Your task to perform on an android device: Add "asus rog" to the cart on newegg, then select checkout. Image 0: 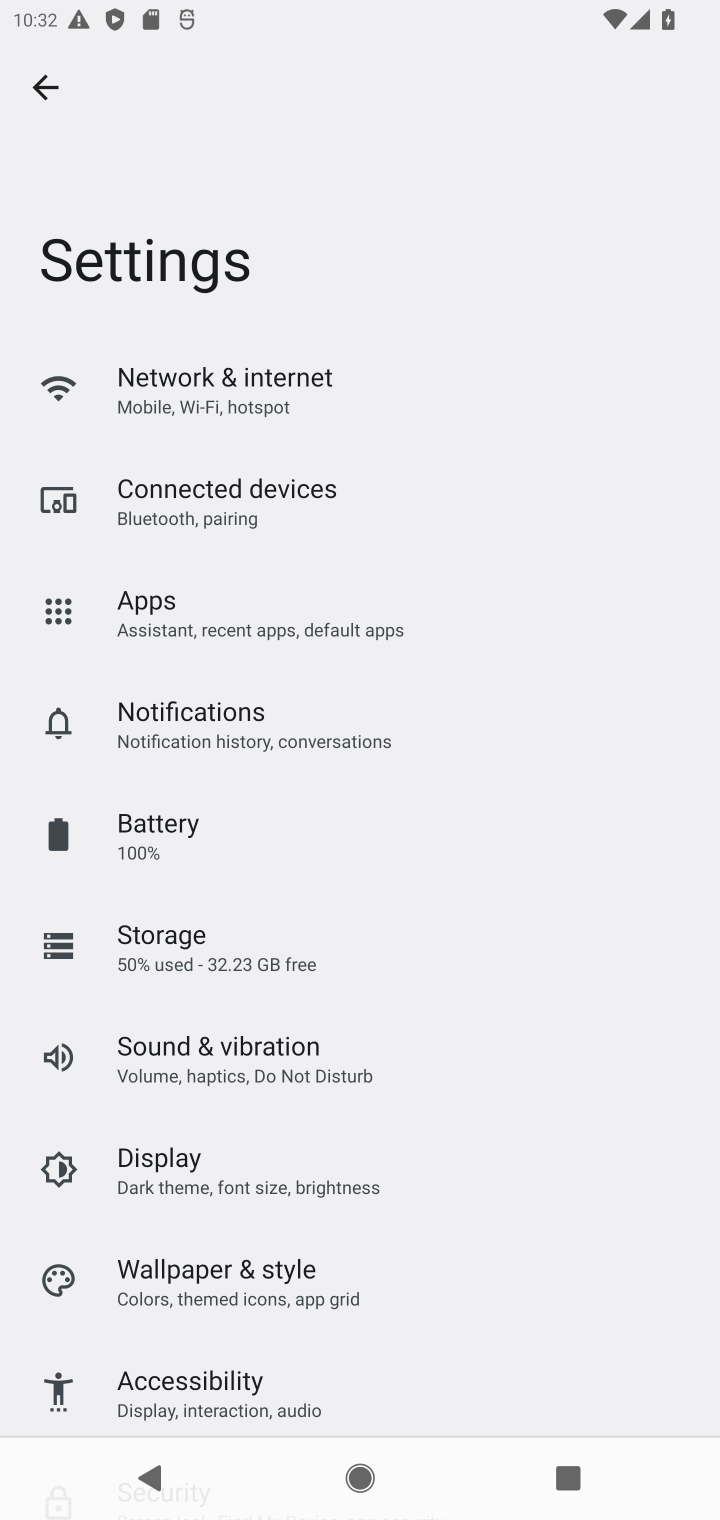
Step 0: press home button
Your task to perform on an android device: Add "asus rog" to the cart on newegg, then select checkout. Image 1: 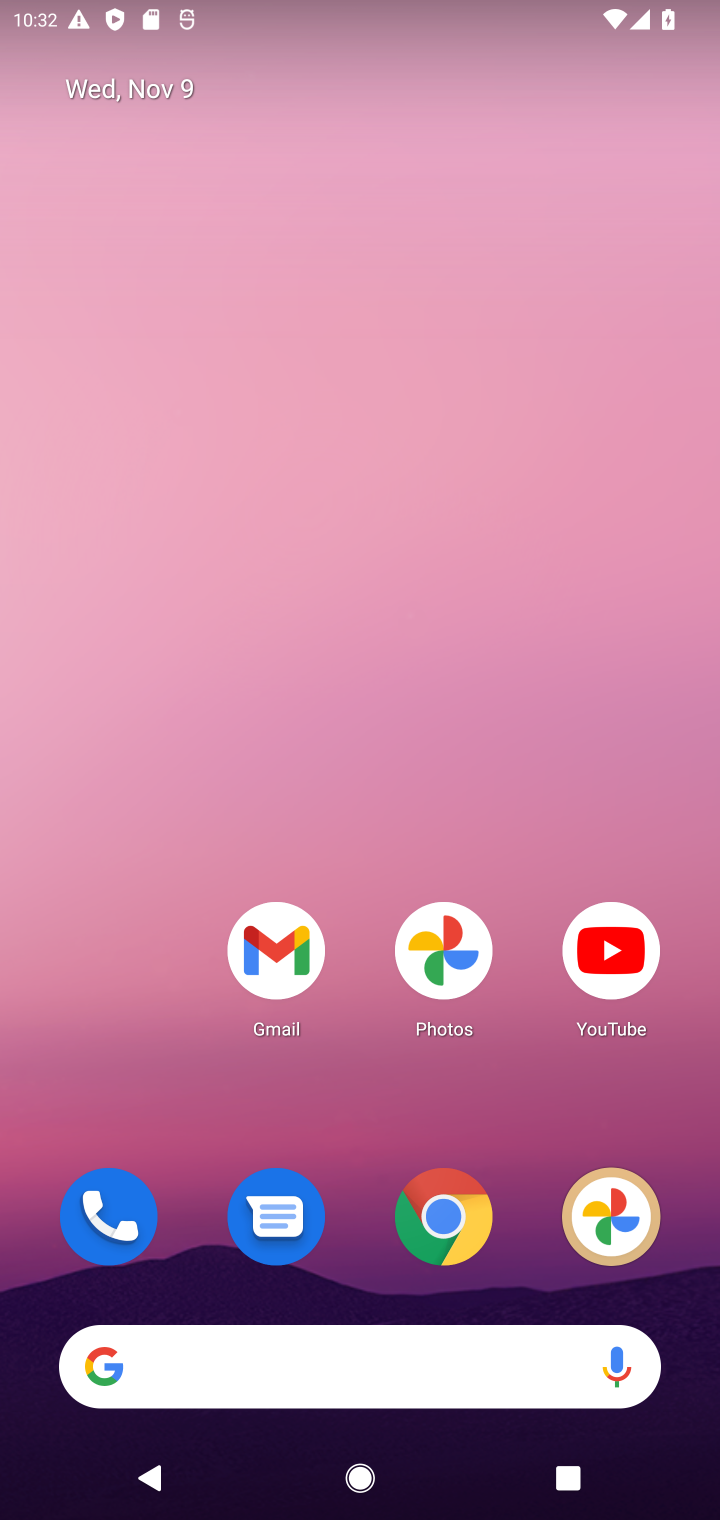
Step 1: drag from (379, 1142) to (344, 59)
Your task to perform on an android device: Add "asus rog" to the cart on newegg, then select checkout. Image 2: 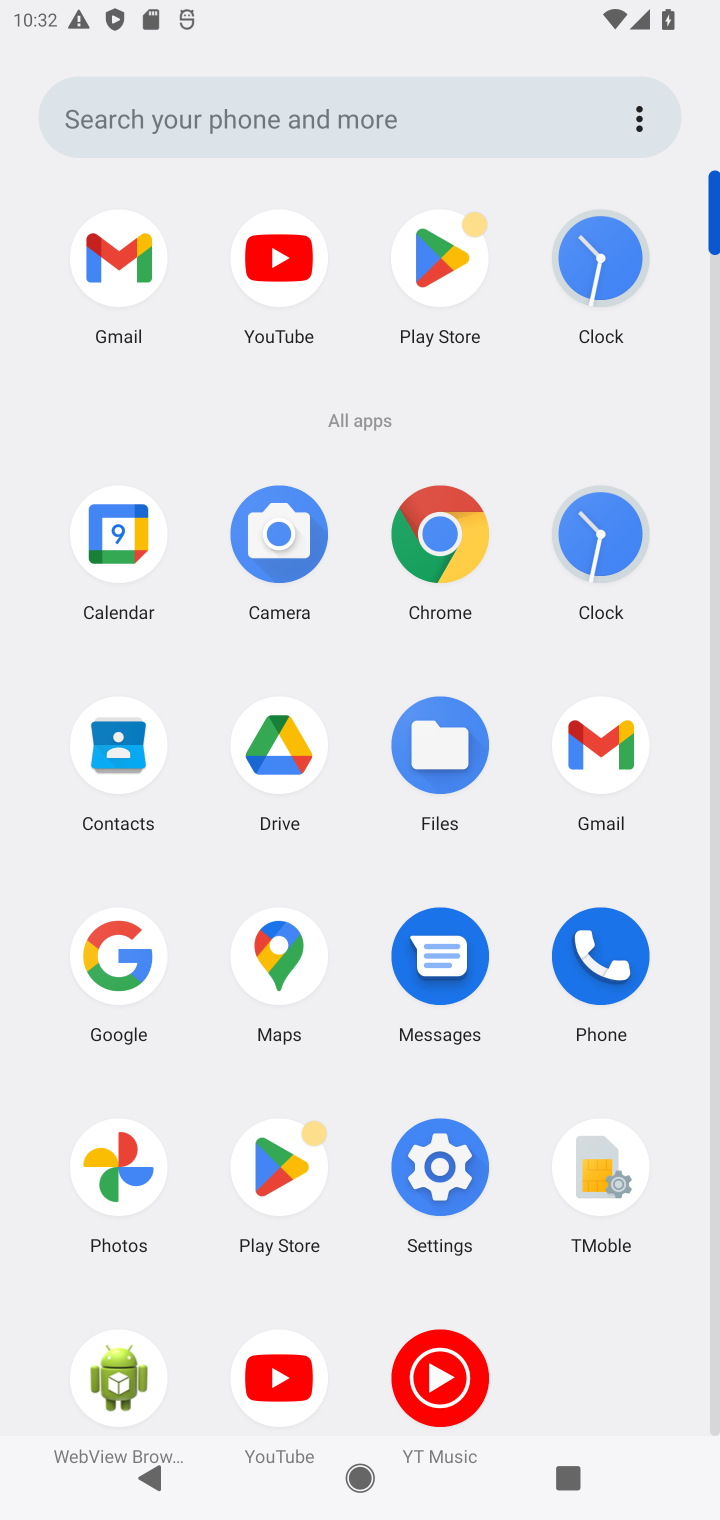
Step 2: click (434, 526)
Your task to perform on an android device: Add "asus rog" to the cart on newegg, then select checkout. Image 3: 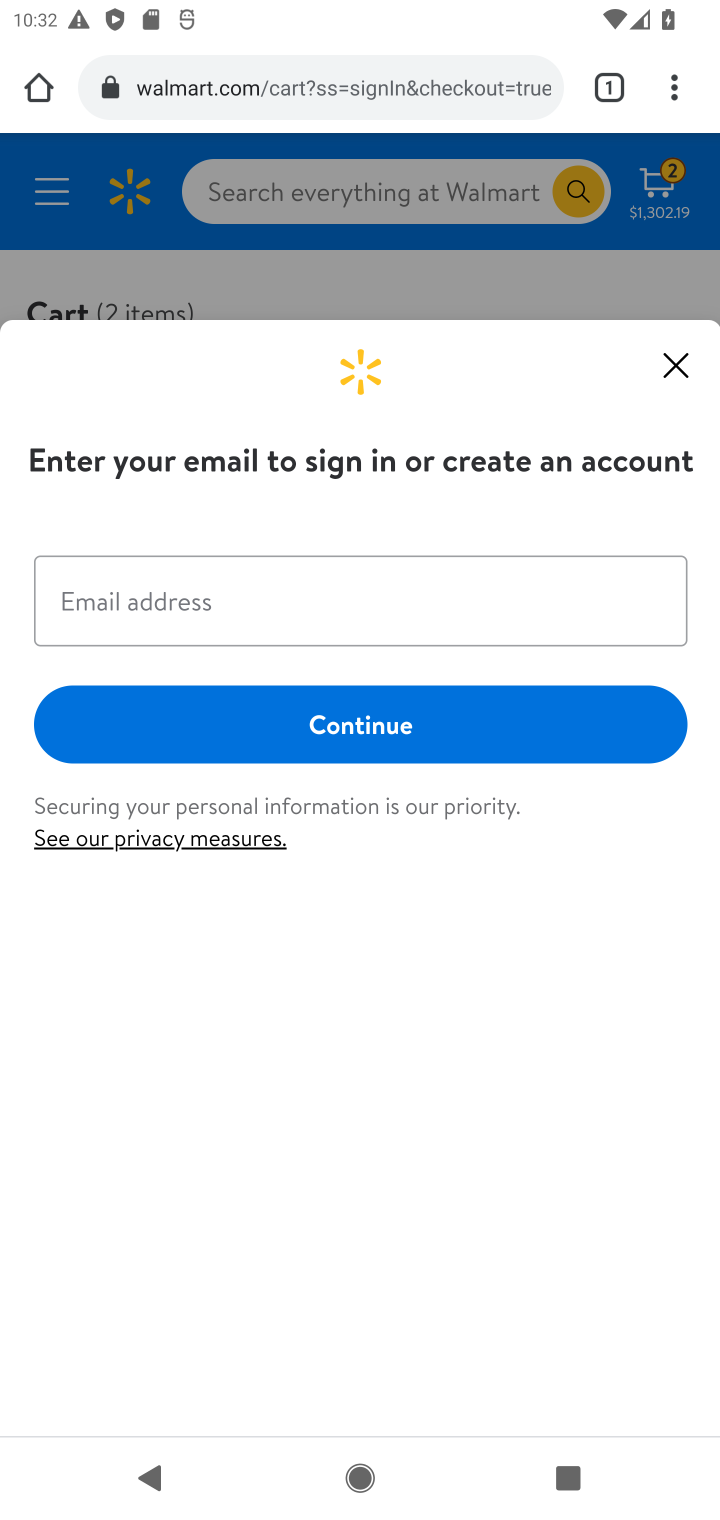
Step 3: click (338, 96)
Your task to perform on an android device: Add "asus rog" to the cart on newegg, then select checkout. Image 4: 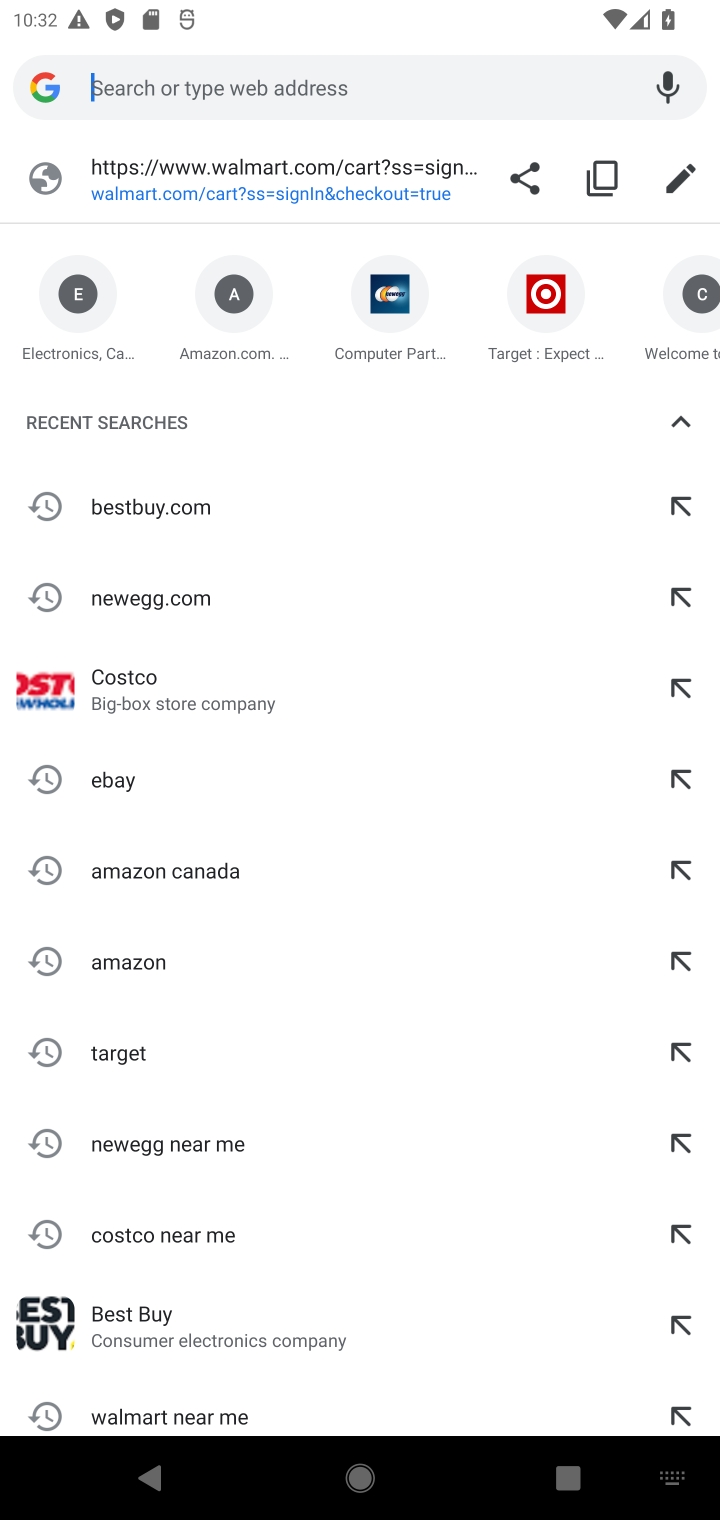
Step 4: type "newegg.com"
Your task to perform on an android device: Add "asus rog" to the cart on newegg, then select checkout. Image 5: 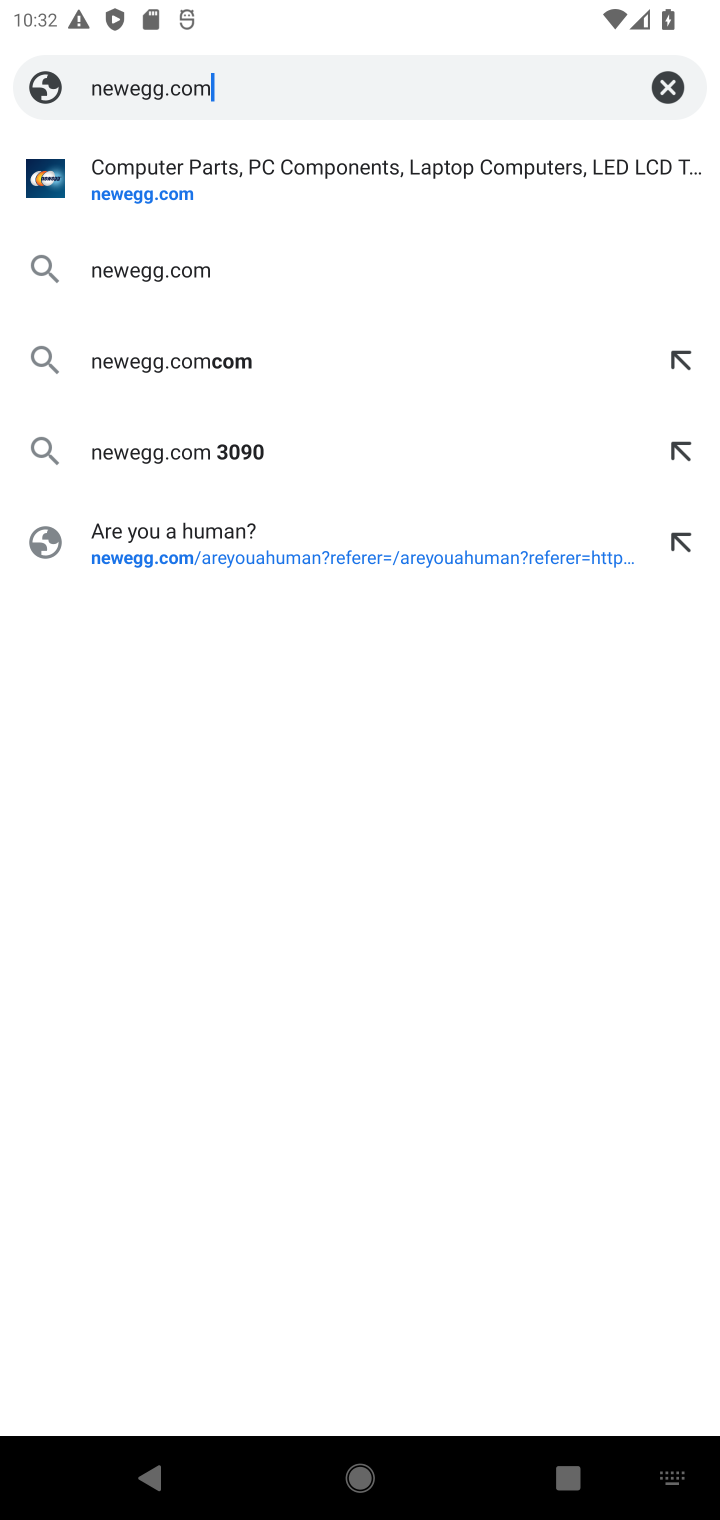
Step 5: press enter
Your task to perform on an android device: Add "asus rog" to the cart on newegg, then select checkout. Image 6: 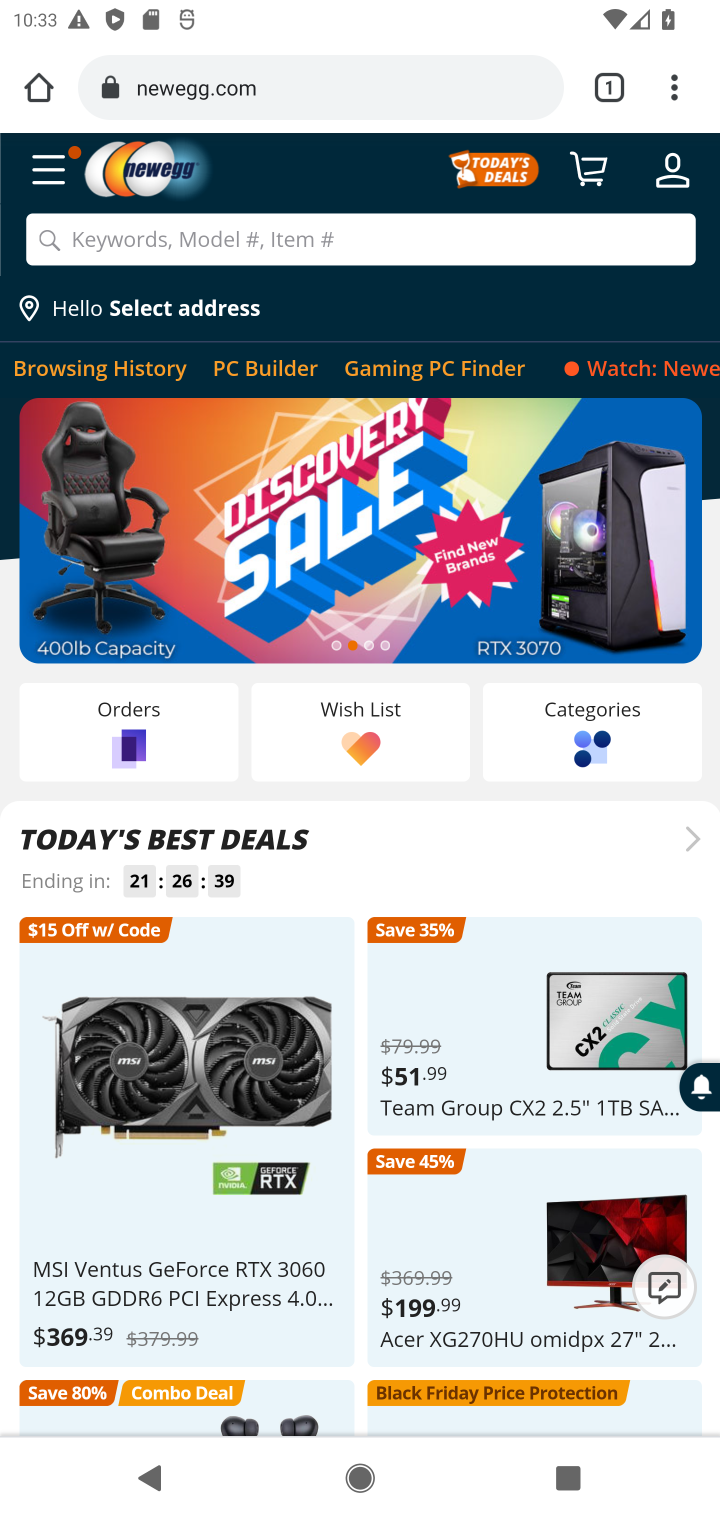
Step 6: click (360, 245)
Your task to perform on an android device: Add "asus rog" to the cart on newegg, then select checkout. Image 7: 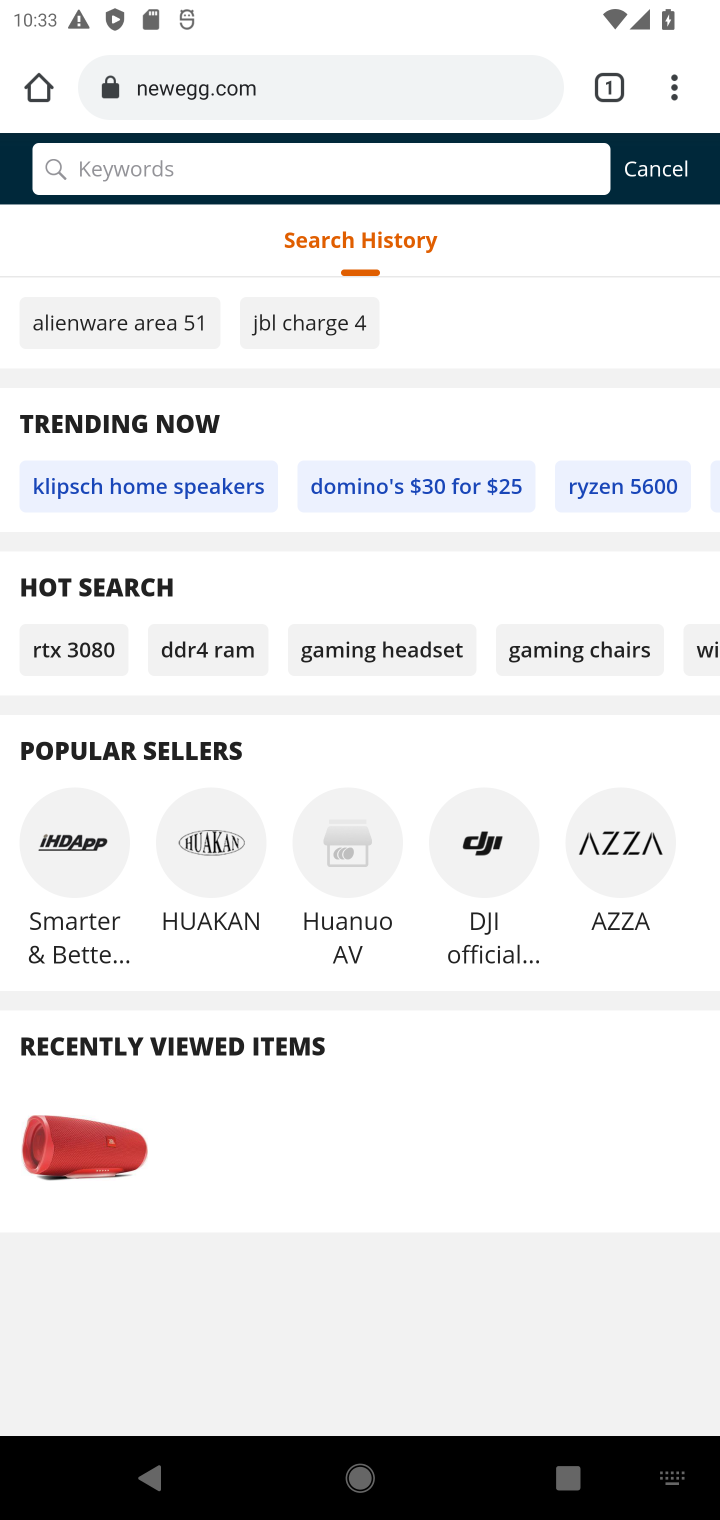
Step 7: type "asus rog"
Your task to perform on an android device: Add "asus rog" to the cart on newegg, then select checkout. Image 8: 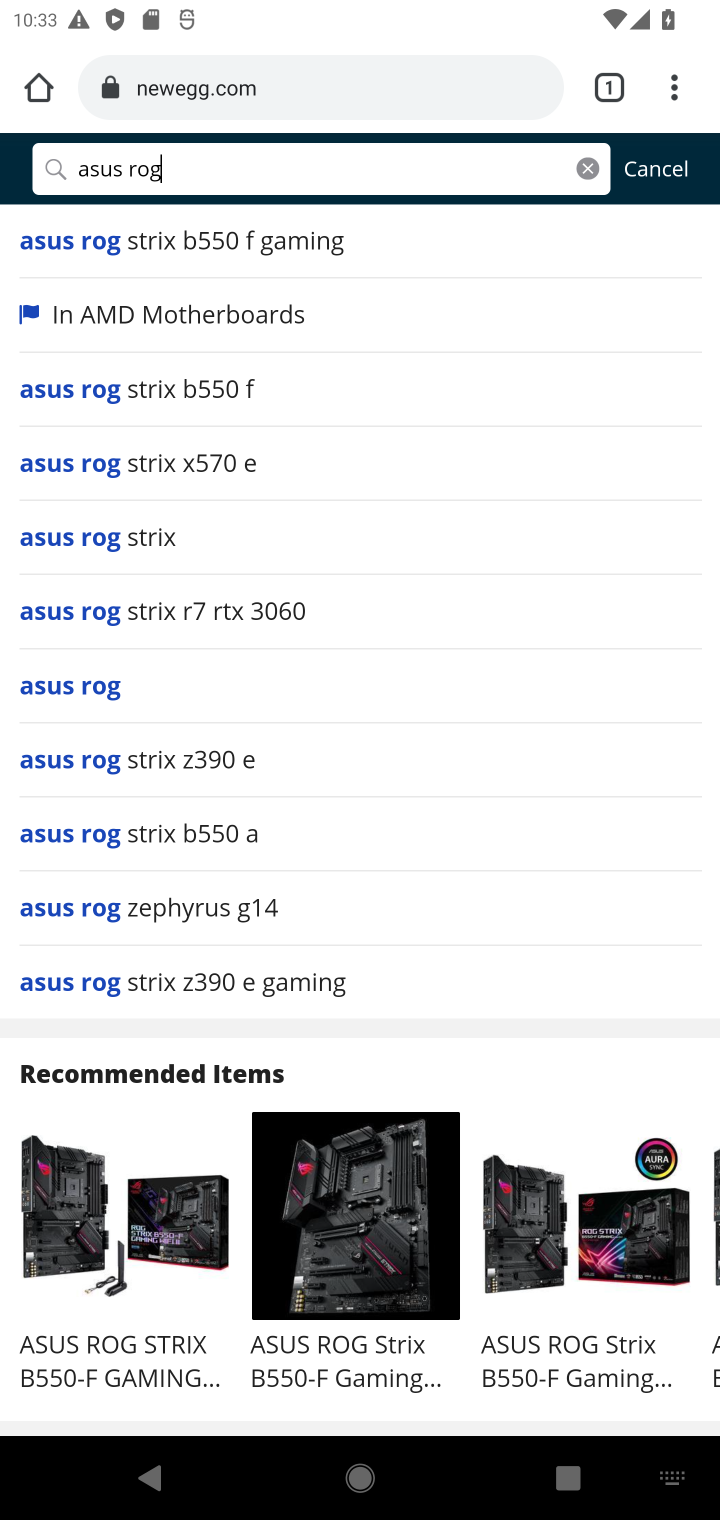
Step 8: press enter
Your task to perform on an android device: Add "asus rog" to the cart on newegg, then select checkout. Image 9: 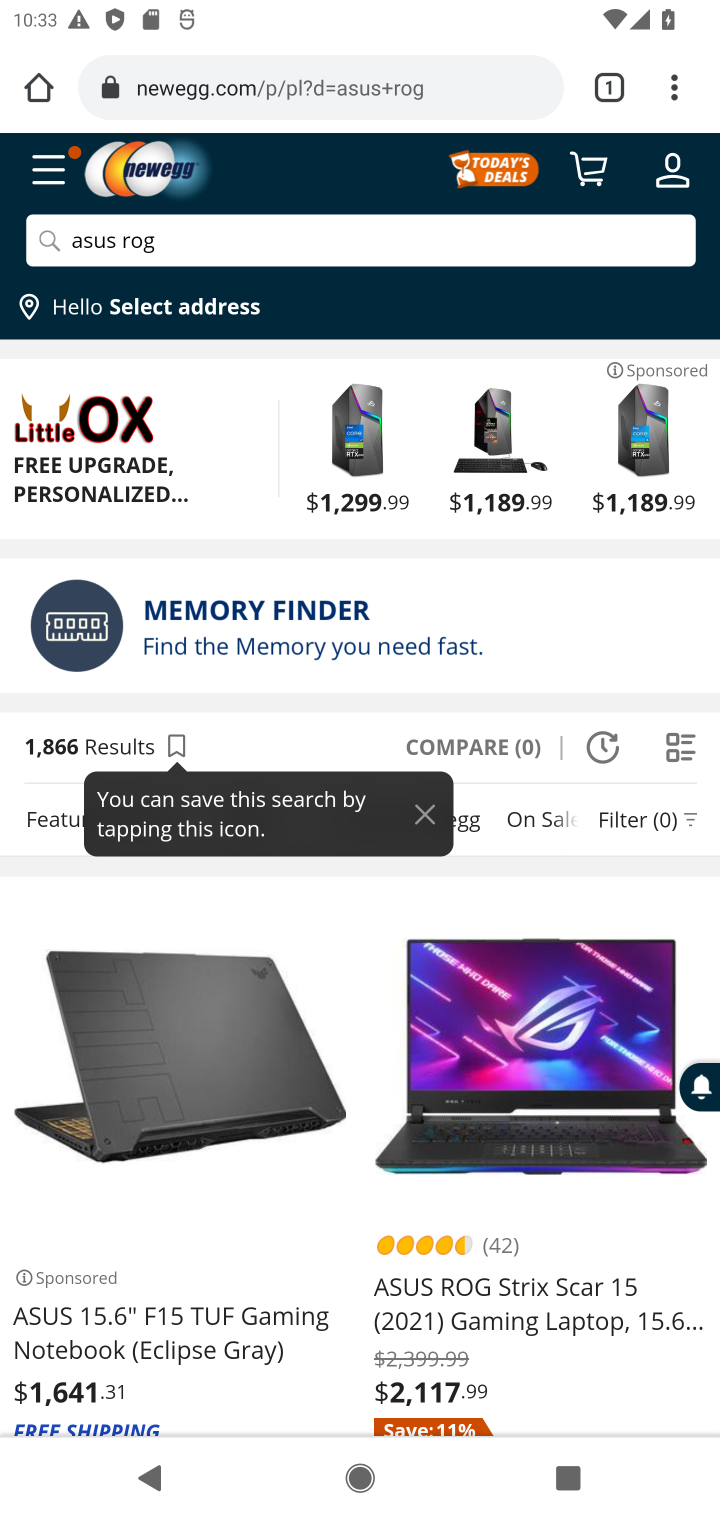
Step 9: drag from (461, 1175) to (470, 504)
Your task to perform on an android device: Add "asus rog" to the cart on newegg, then select checkout. Image 10: 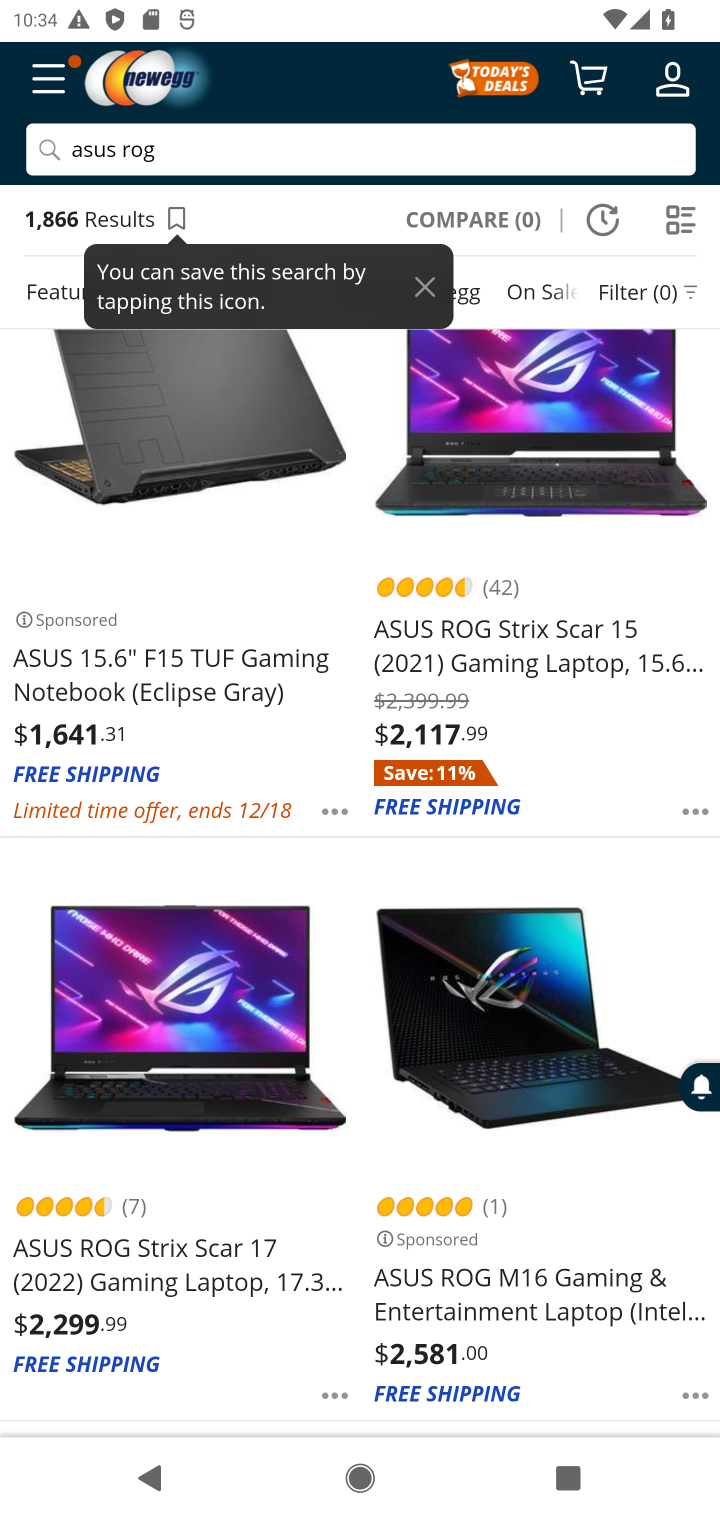
Step 10: click (523, 669)
Your task to perform on an android device: Add "asus rog" to the cart on newegg, then select checkout. Image 11: 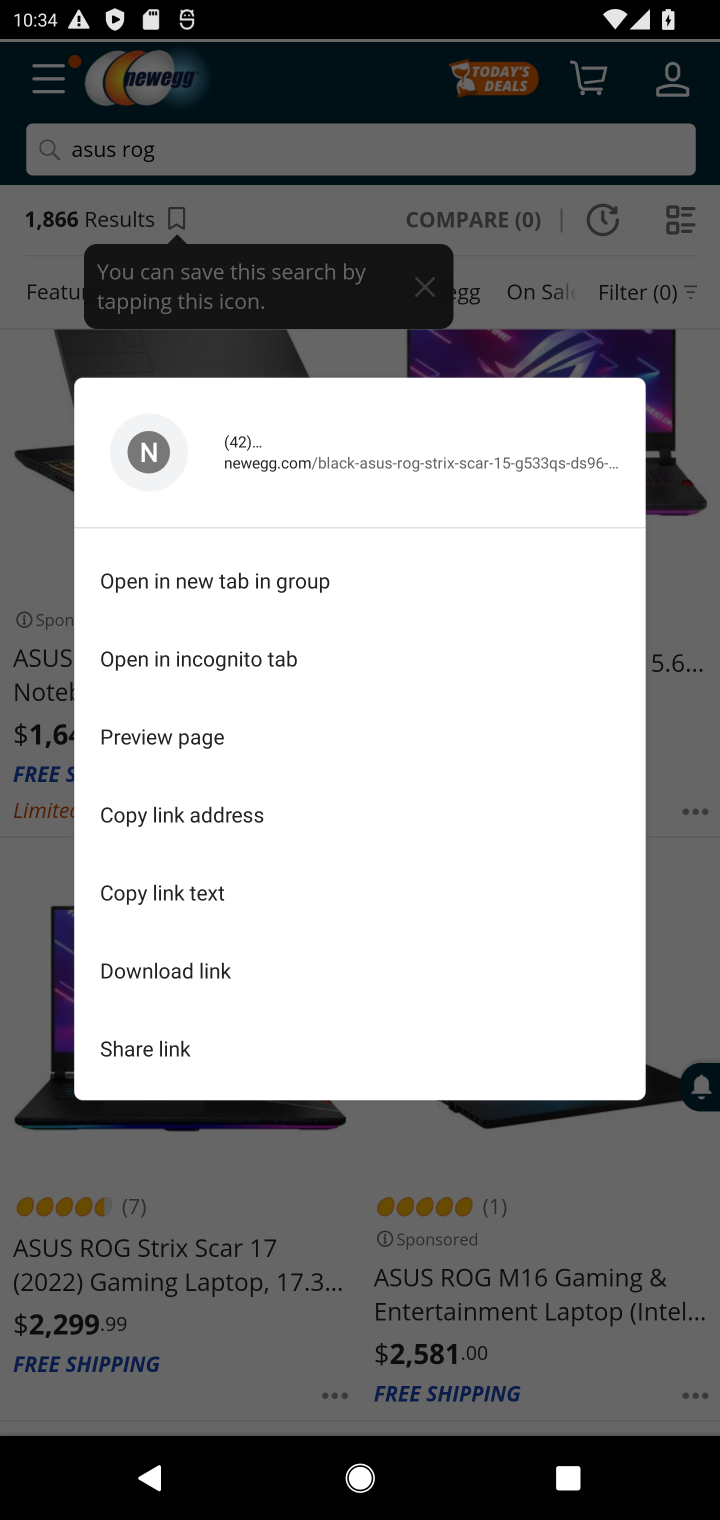
Step 11: click (673, 366)
Your task to perform on an android device: Add "asus rog" to the cart on newegg, then select checkout. Image 12: 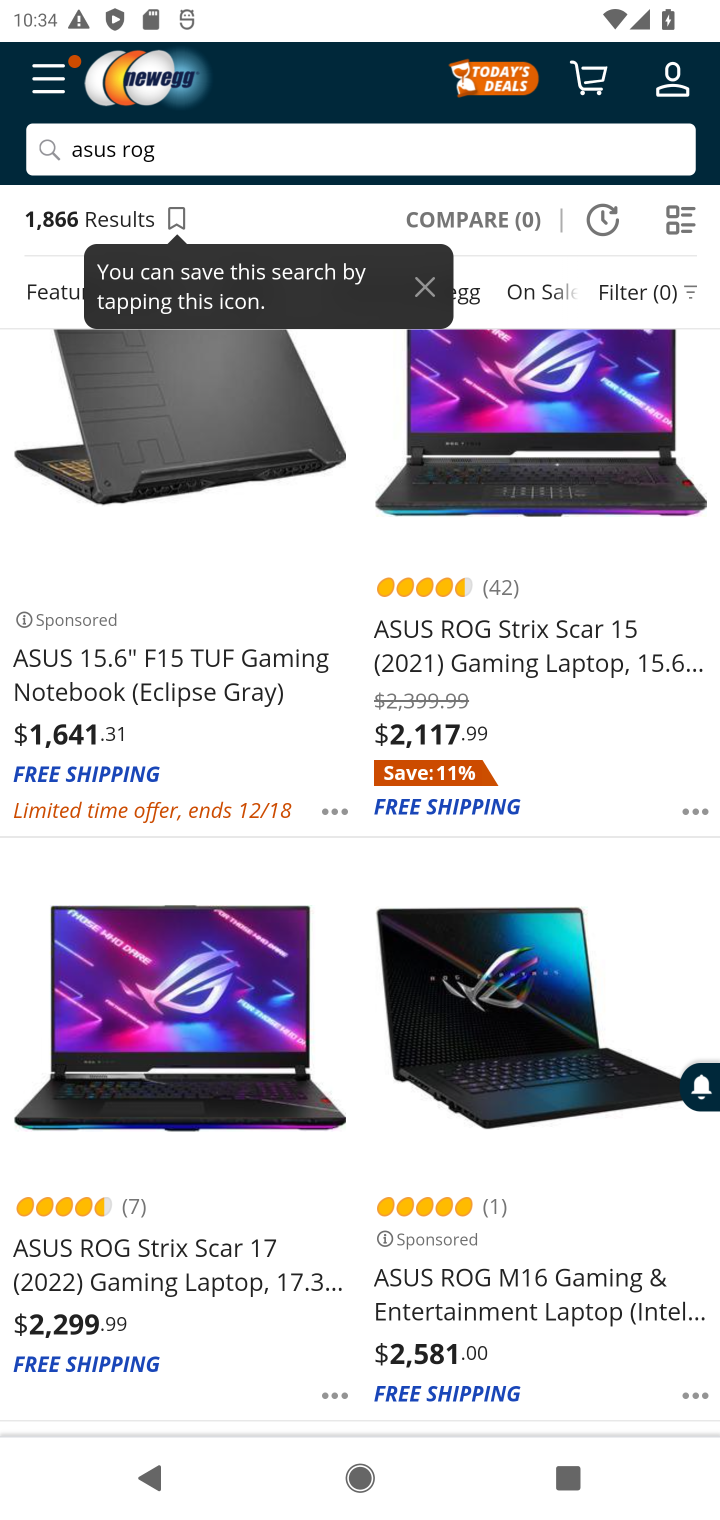
Step 12: click (513, 630)
Your task to perform on an android device: Add "asus rog" to the cart on newegg, then select checkout. Image 13: 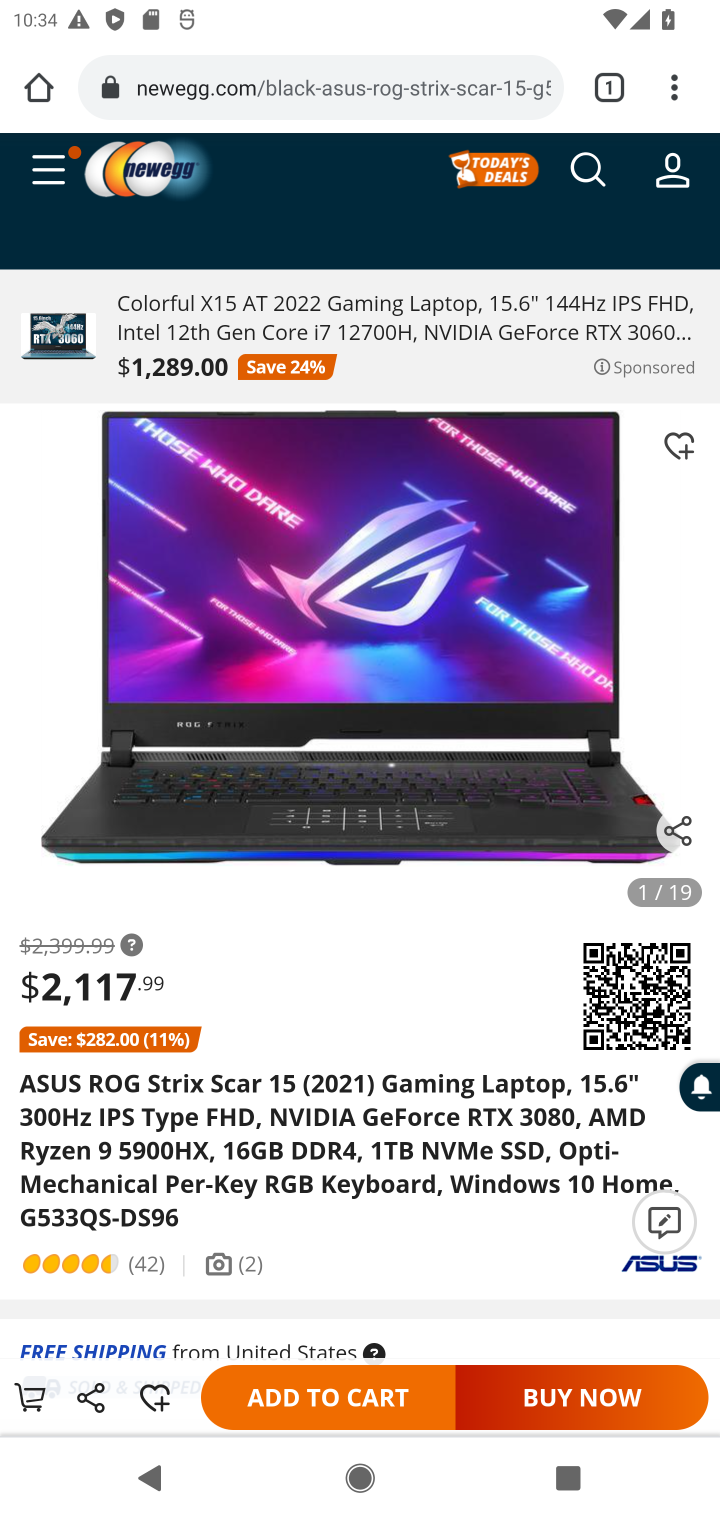
Step 13: click (289, 1395)
Your task to perform on an android device: Add "asus rog" to the cart on newegg, then select checkout. Image 14: 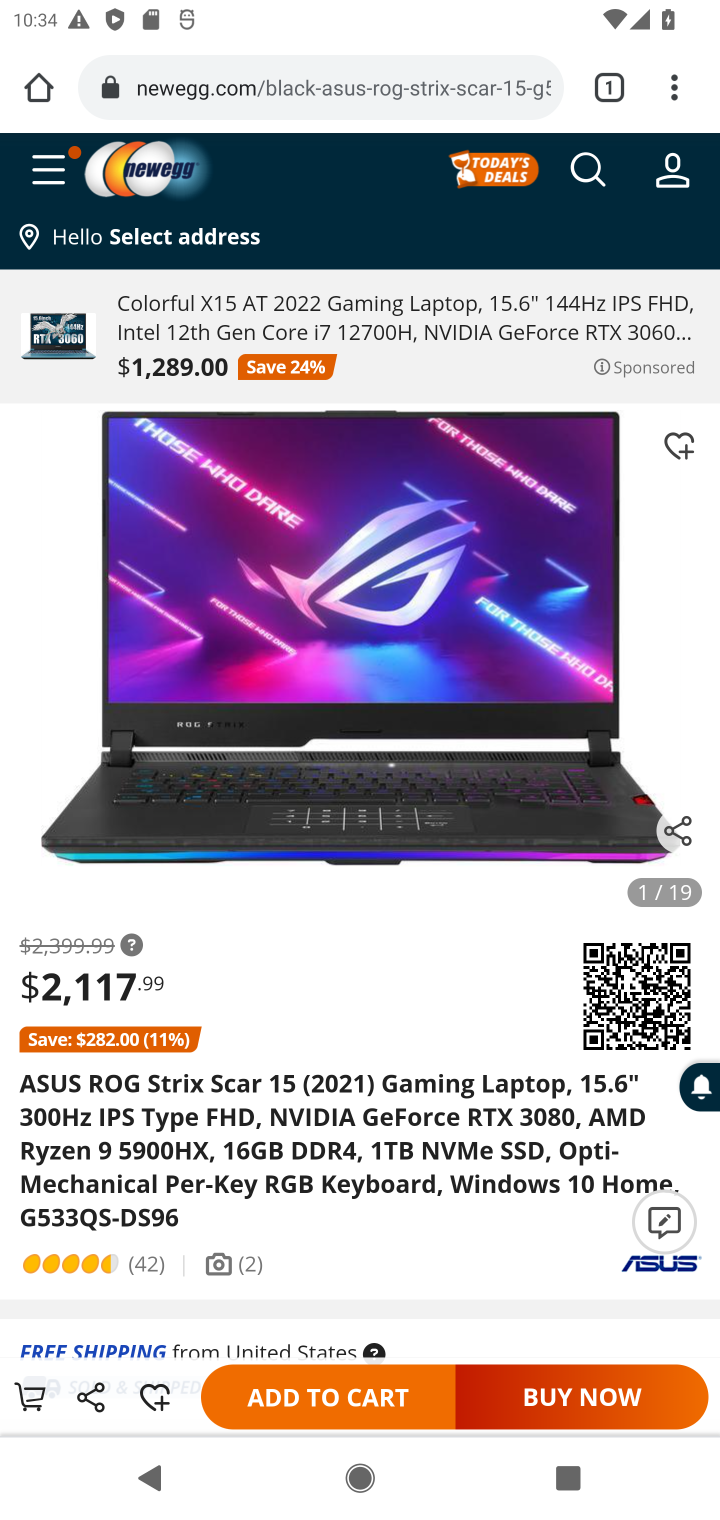
Step 14: click (334, 1395)
Your task to perform on an android device: Add "asus rog" to the cart on newegg, then select checkout. Image 15: 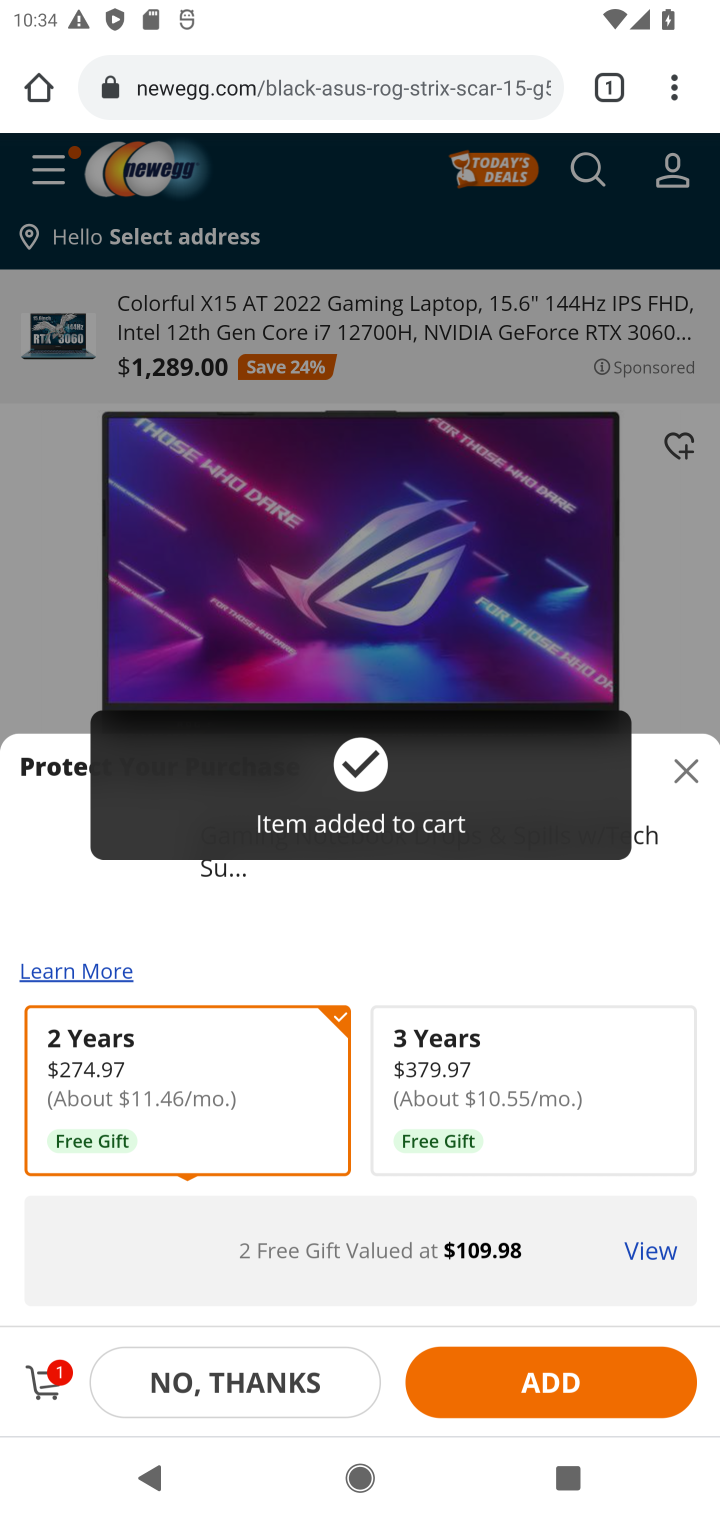
Step 15: click (35, 1387)
Your task to perform on an android device: Add "asus rog" to the cart on newegg, then select checkout. Image 16: 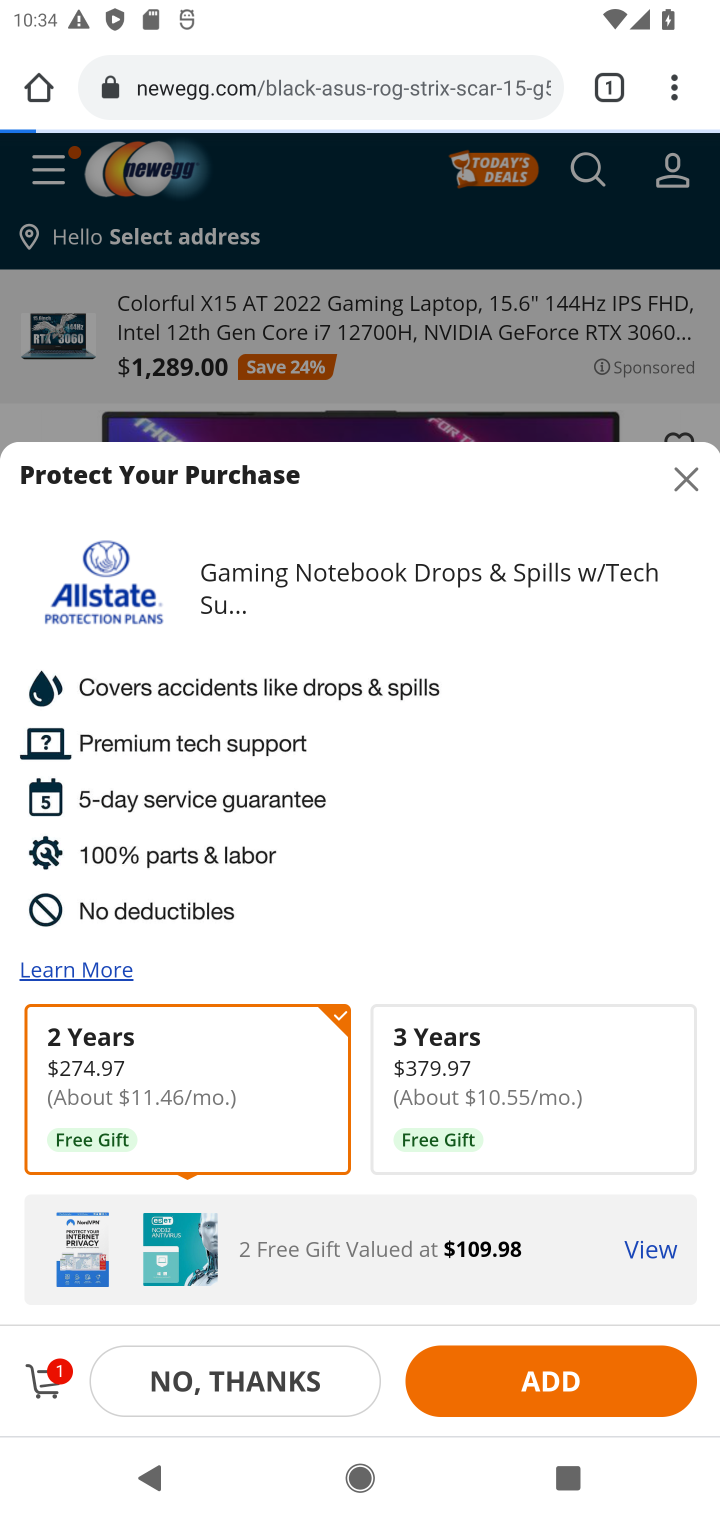
Step 16: click (35, 1387)
Your task to perform on an android device: Add "asus rog" to the cart on newegg, then select checkout. Image 17: 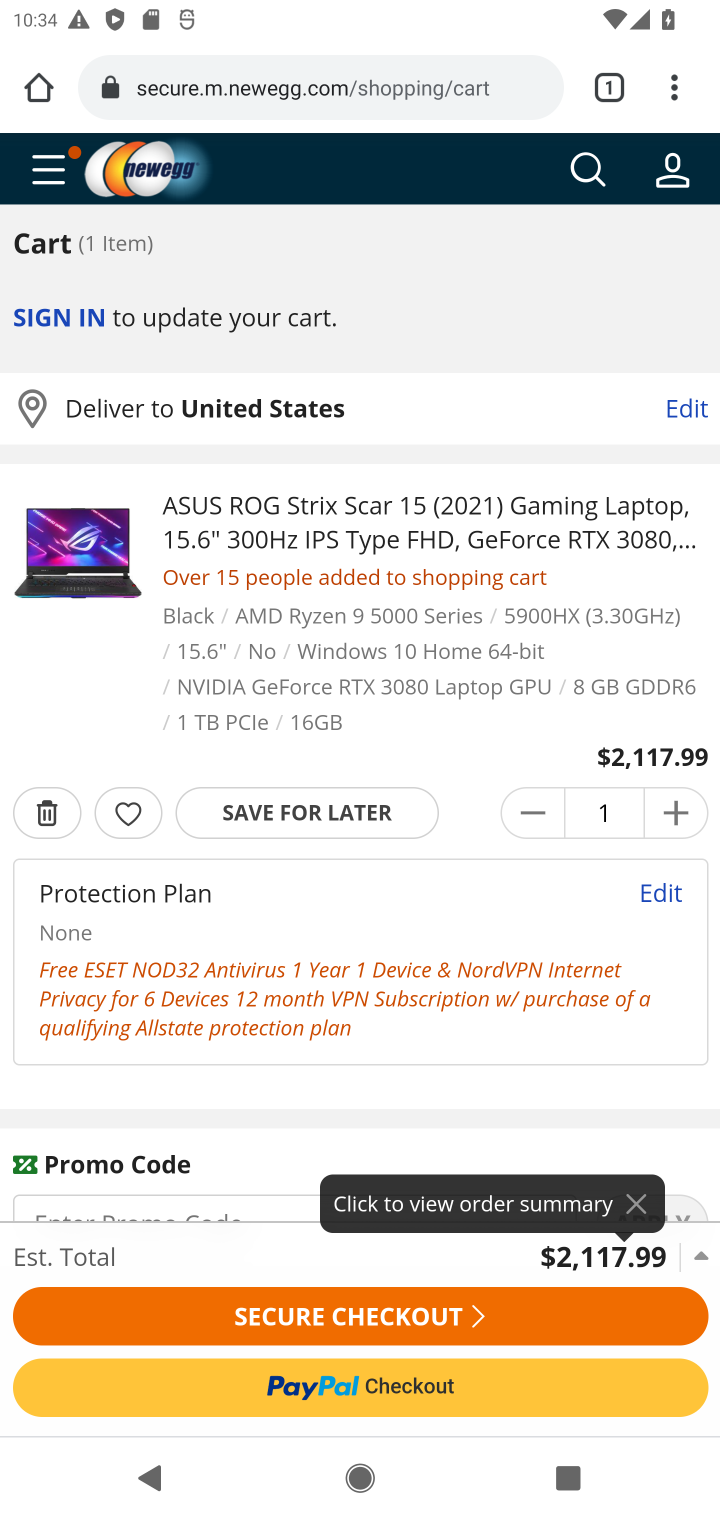
Step 17: click (425, 1311)
Your task to perform on an android device: Add "asus rog" to the cart on newegg, then select checkout. Image 18: 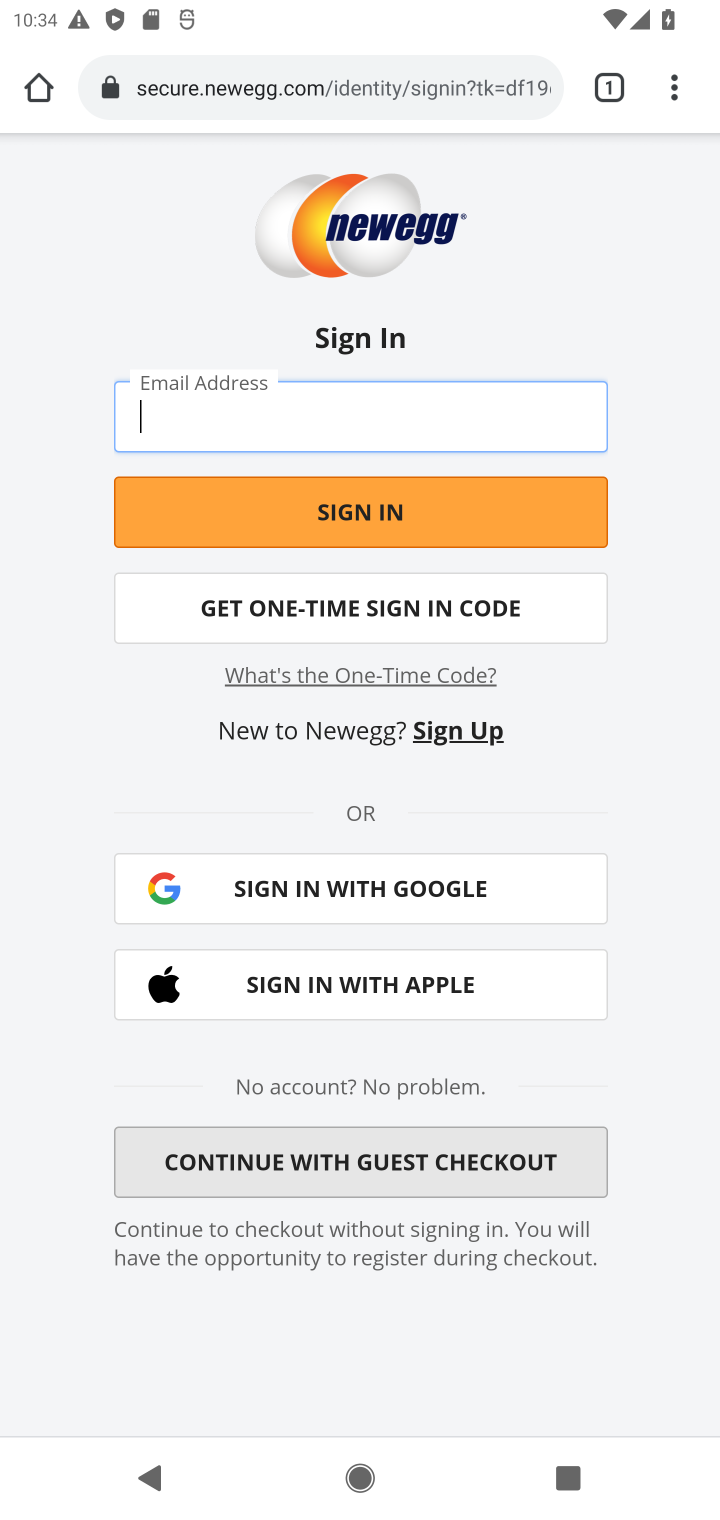
Step 18: task complete